Your task to perform on an android device: Show me productivity apps on the Play Store Image 0: 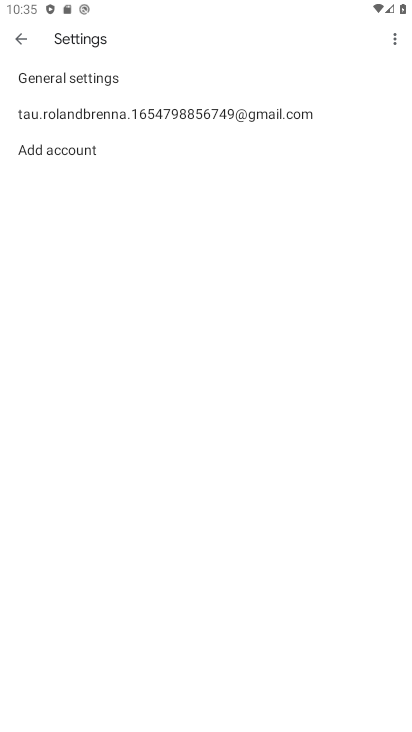
Step 0: press home button
Your task to perform on an android device: Show me productivity apps on the Play Store Image 1: 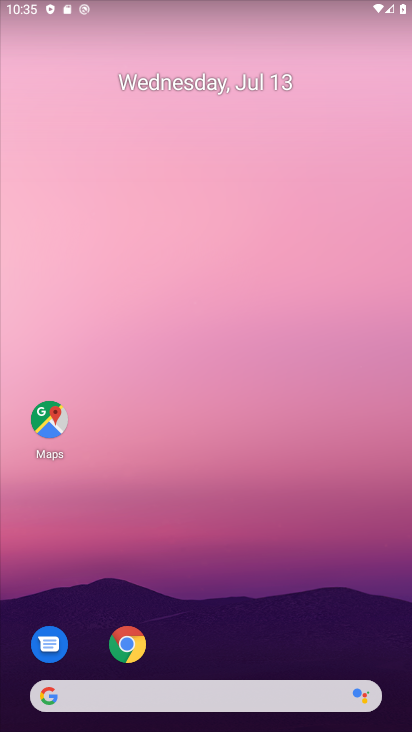
Step 1: drag from (206, 559) to (168, 195)
Your task to perform on an android device: Show me productivity apps on the Play Store Image 2: 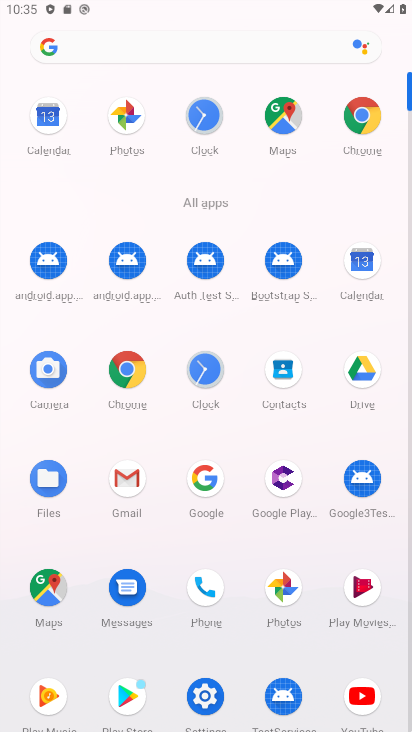
Step 2: click (120, 695)
Your task to perform on an android device: Show me productivity apps on the Play Store Image 3: 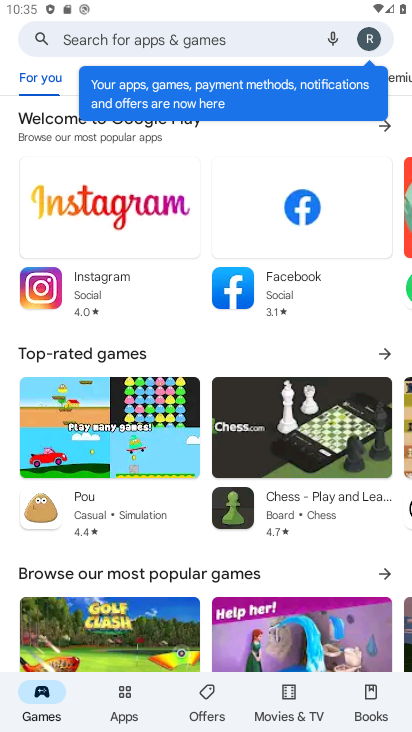
Step 3: click (121, 702)
Your task to perform on an android device: Show me productivity apps on the Play Store Image 4: 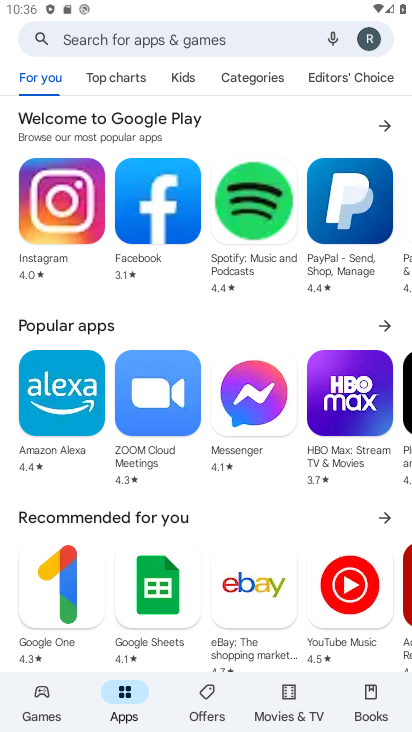
Step 4: task complete